Your task to perform on an android device: Open Google Image 0: 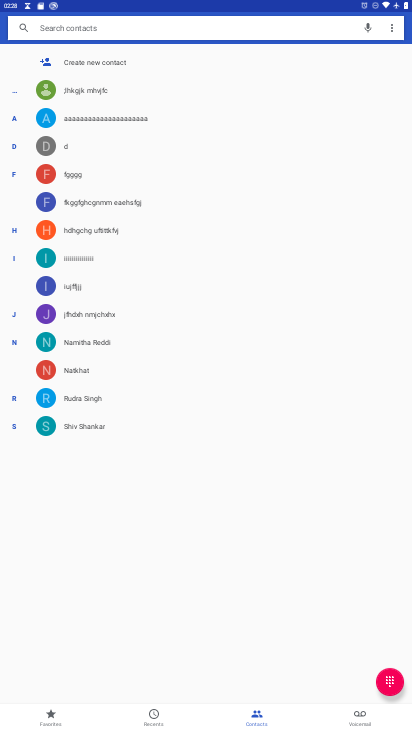
Step 0: press home button
Your task to perform on an android device: Open Google Image 1: 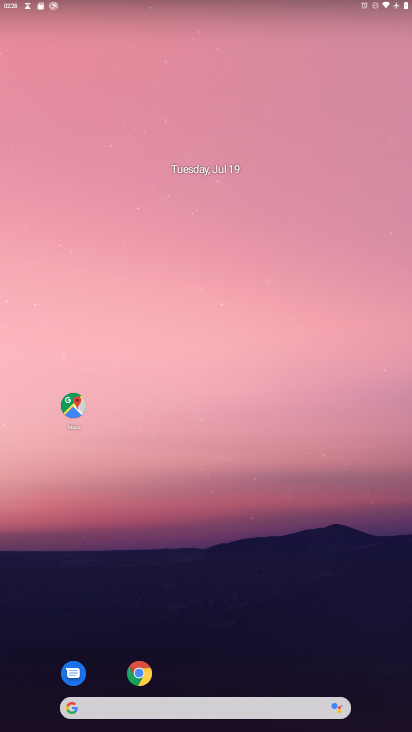
Step 1: drag from (231, 633) to (213, 385)
Your task to perform on an android device: Open Google Image 2: 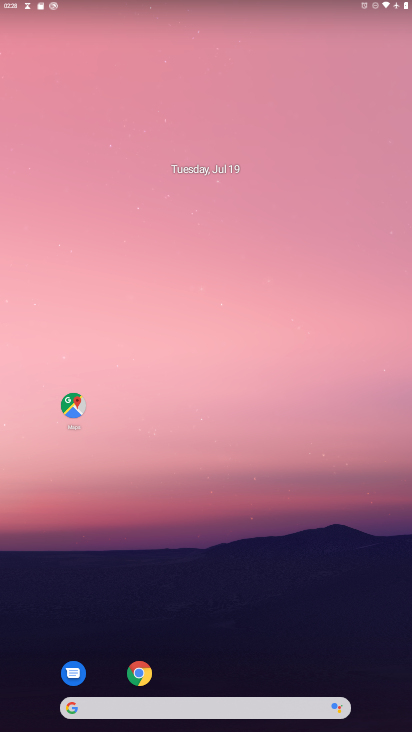
Step 2: drag from (257, 652) to (243, 145)
Your task to perform on an android device: Open Google Image 3: 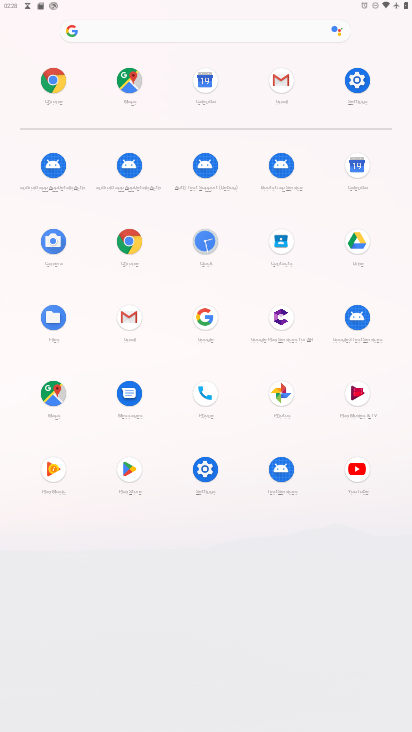
Step 3: click (200, 312)
Your task to perform on an android device: Open Google Image 4: 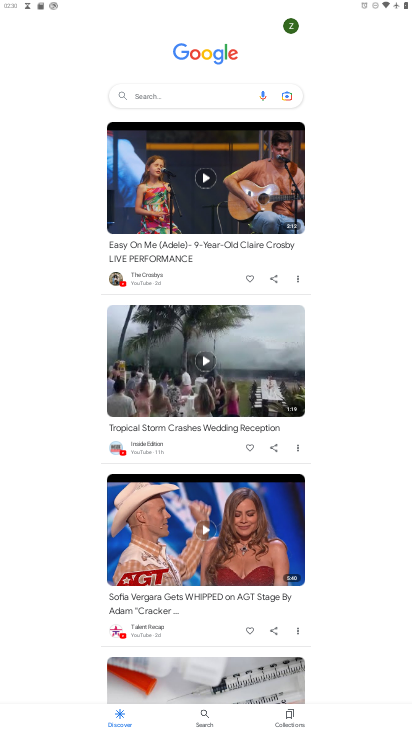
Step 4: task complete